Your task to perform on an android device: install app "Google Pay: Save, Pay, Manage" Image 0: 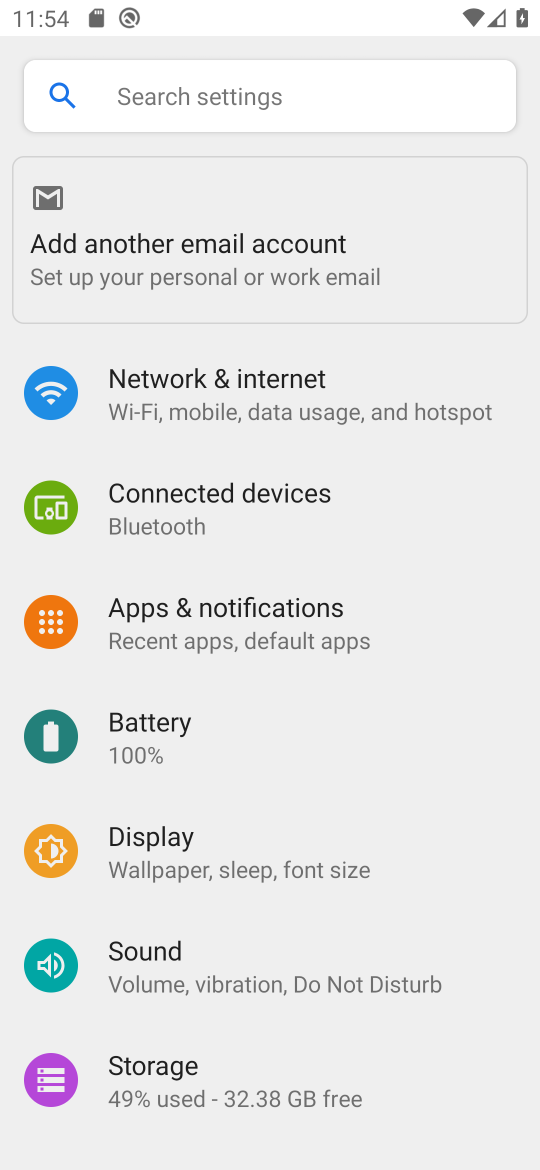
Step 0: press home button
Your task to perform on an android device: install app "Google Pay: Save, Pay, Manage" Image 1: 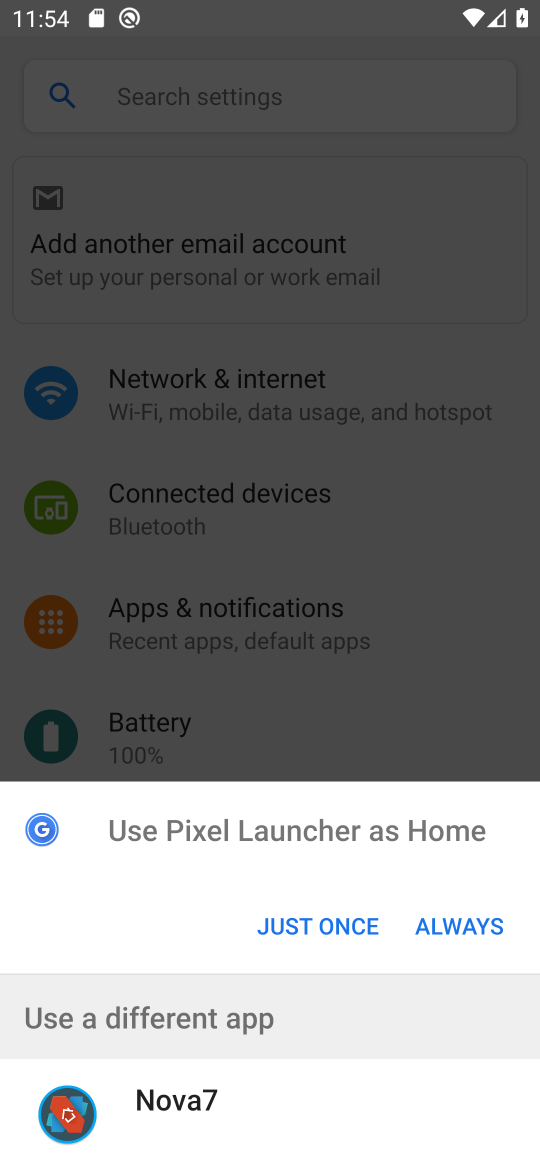
Step 1: click (287, 920)
Your task to perform on an android device: install app "Google Pay: Save, Pay, Manage" Image 2: 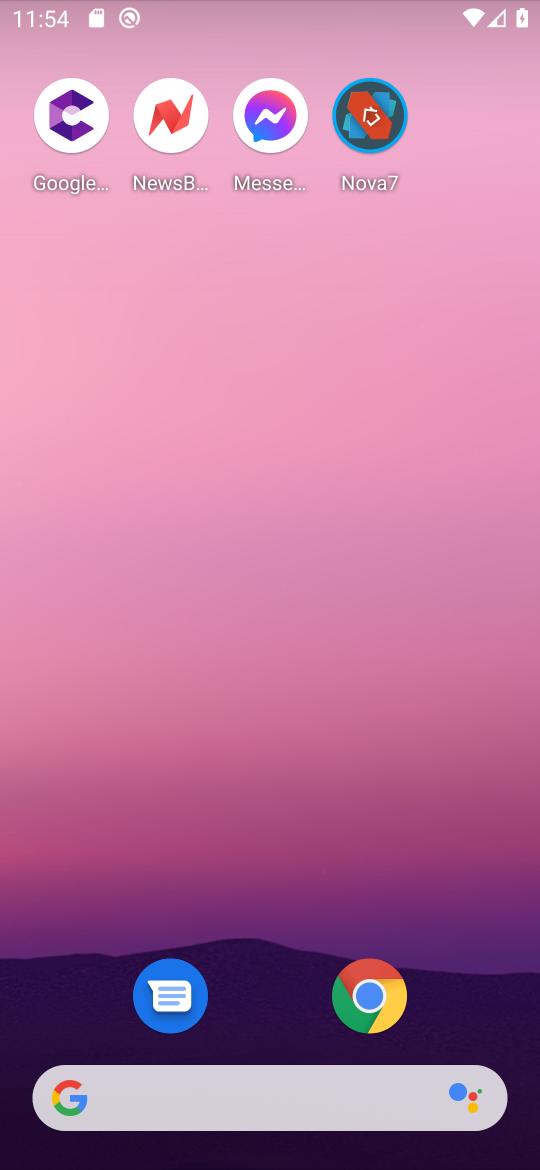
Step 2: drag from (194, 1056) to (299, 257)
Your task to perform on an android device: install app "Google Pay: Save, Pay, Manage" Image 3: 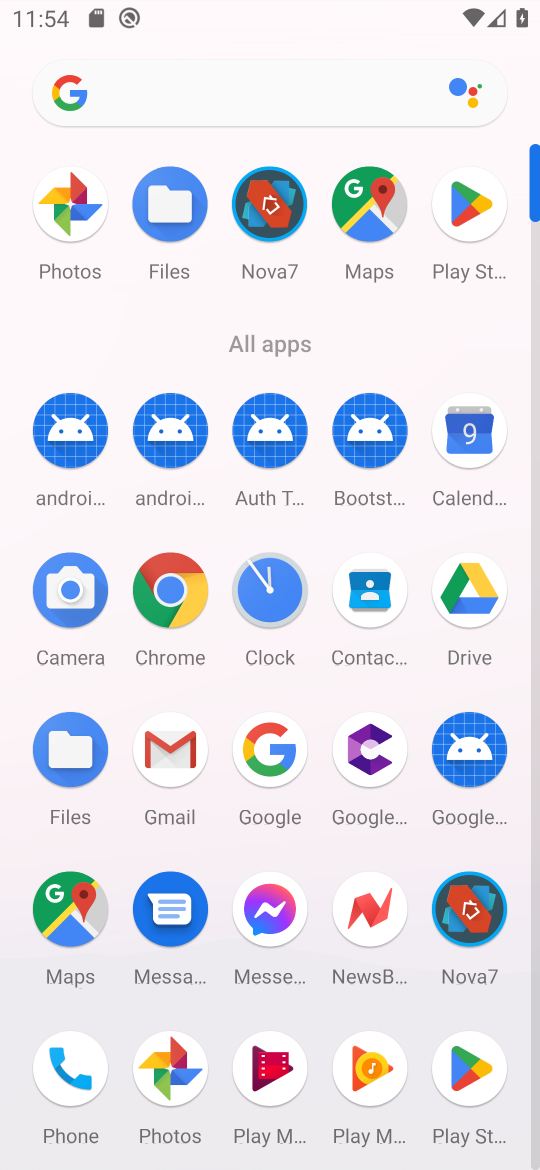
Step 3: click (456, 1058)
Your task to perform on an android device: install app "Google Pay: Save, Pay, Manage" Image 4: 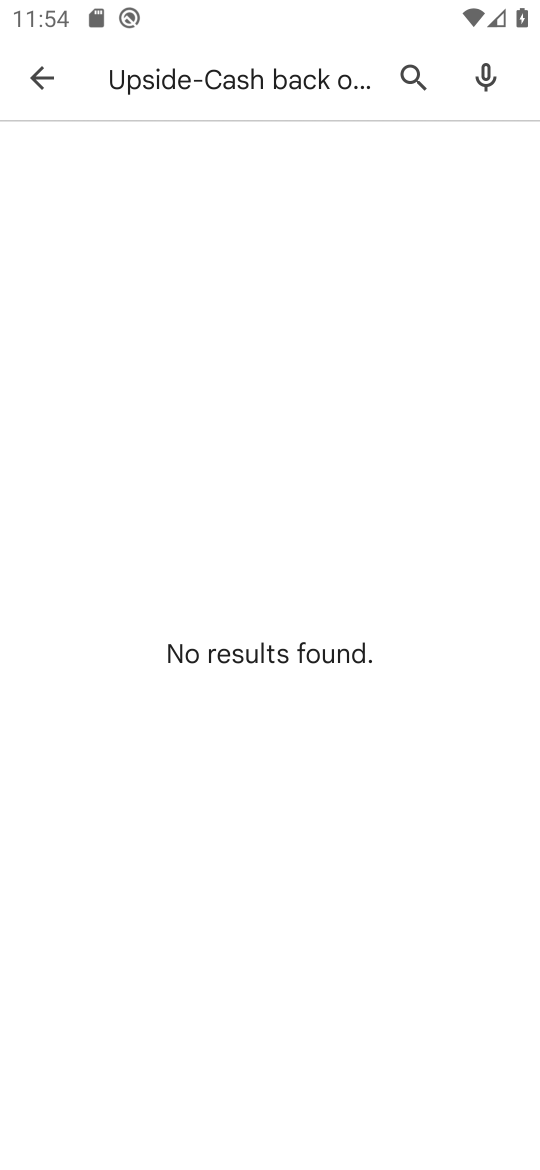
Step 4: click (34, 76)
Your task to perform on an android device: install app "Google Pay: Save, Pay, Manage" Image 5: 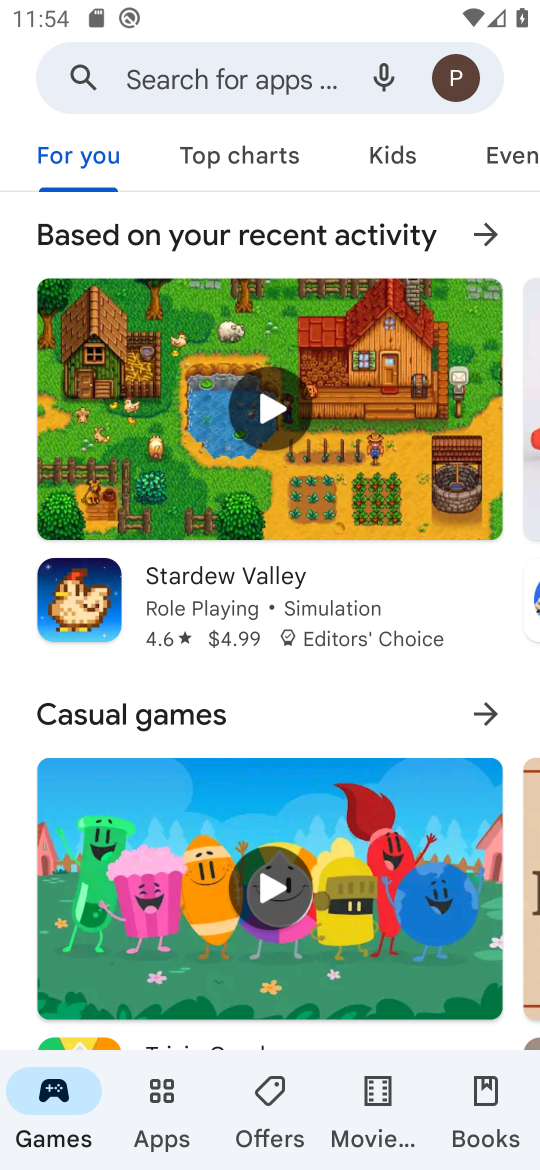
Step 5: click (209, 88)
Your task to perform on an android device: install app "Google Pay: Save, Pay, Manage" Image 6: 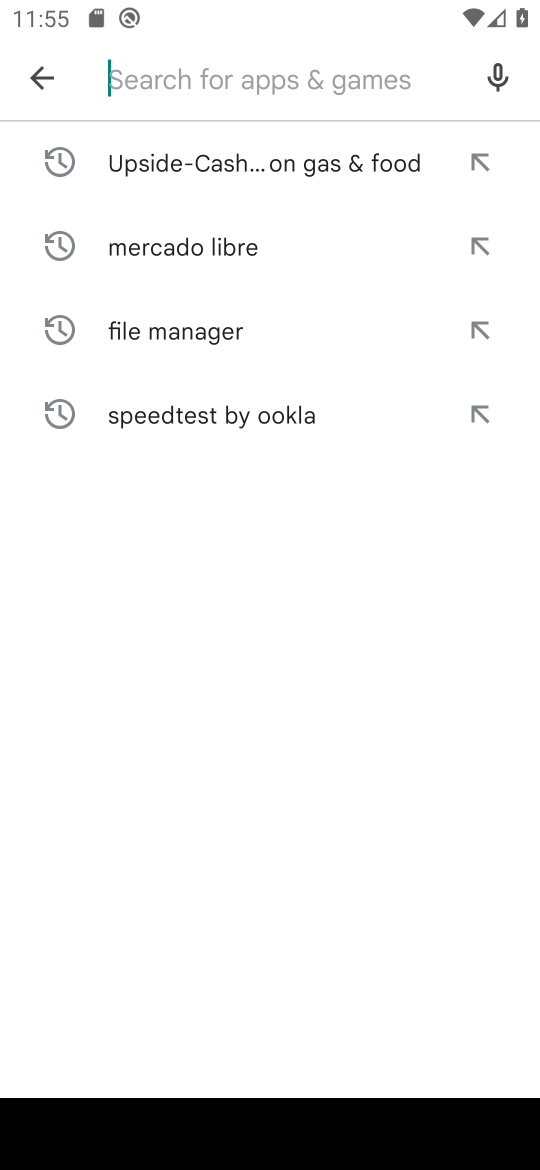
Step 6: type "Google Pay: Save, Pay, Manage"
Your task to perform on an android device: install app "Google Pay: Save, Pay, Manage" Image 7: 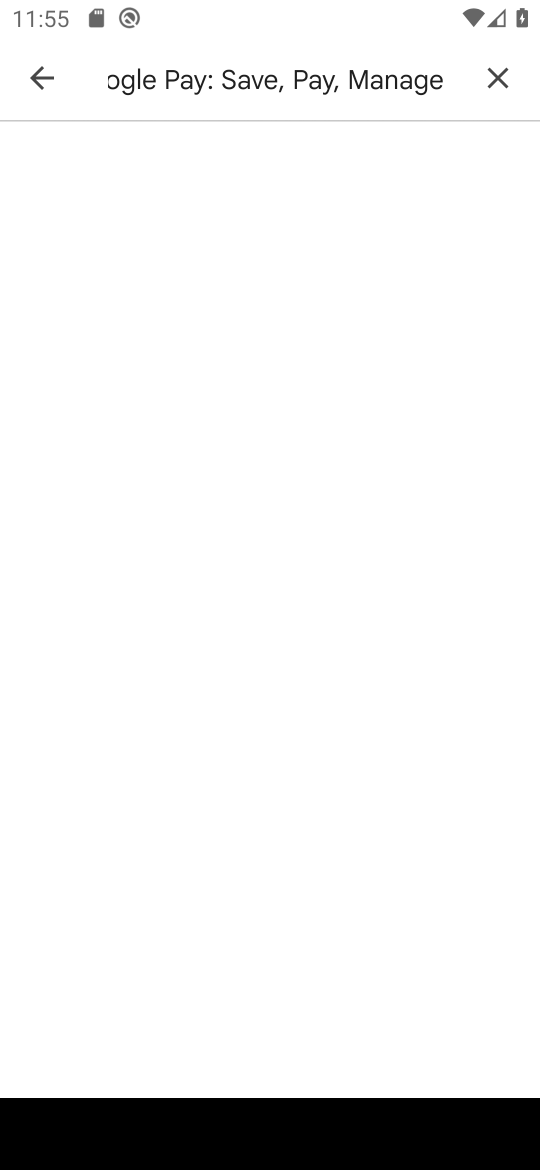
Step 7: press enter
Your task to perform on an android device: install app "Google Pay: Save, Pay, Manage" Image 8: 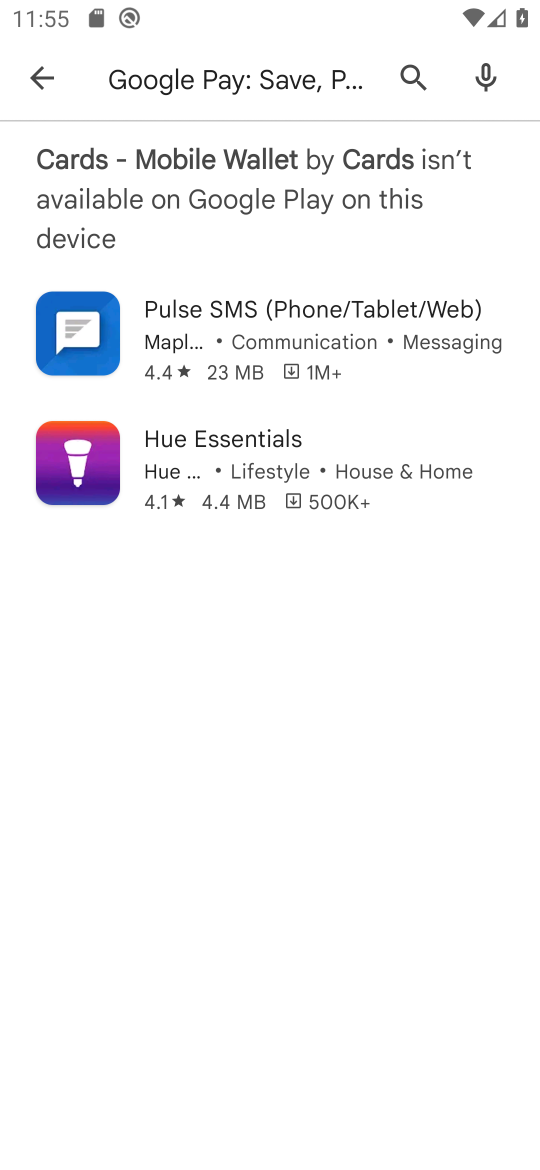
Step 8: task complete